Your task to perform on an android device: turn off improve location accuracy Image 0: 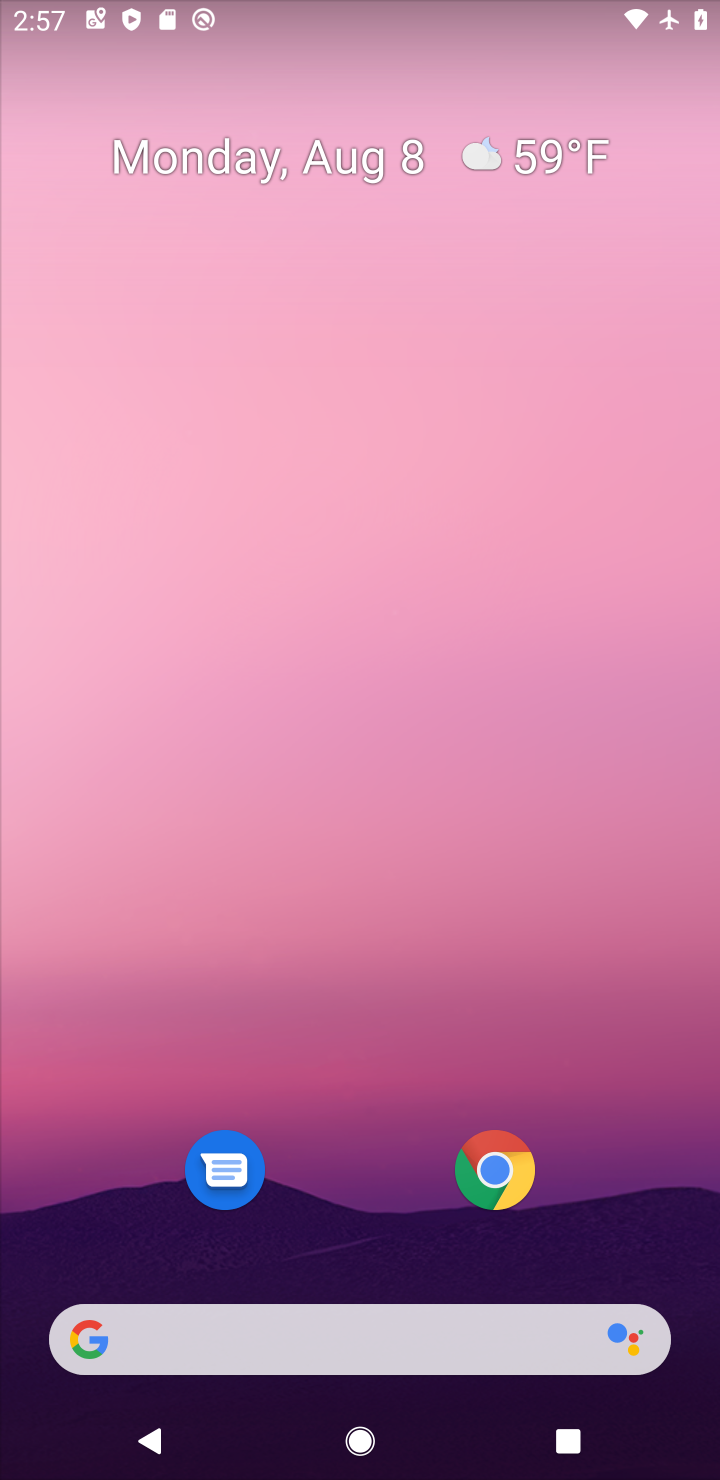
Step 0: drag from (363, 733) to (389, 472)
Your task to perform on an android device: turn off improve location accuracy Image 1: 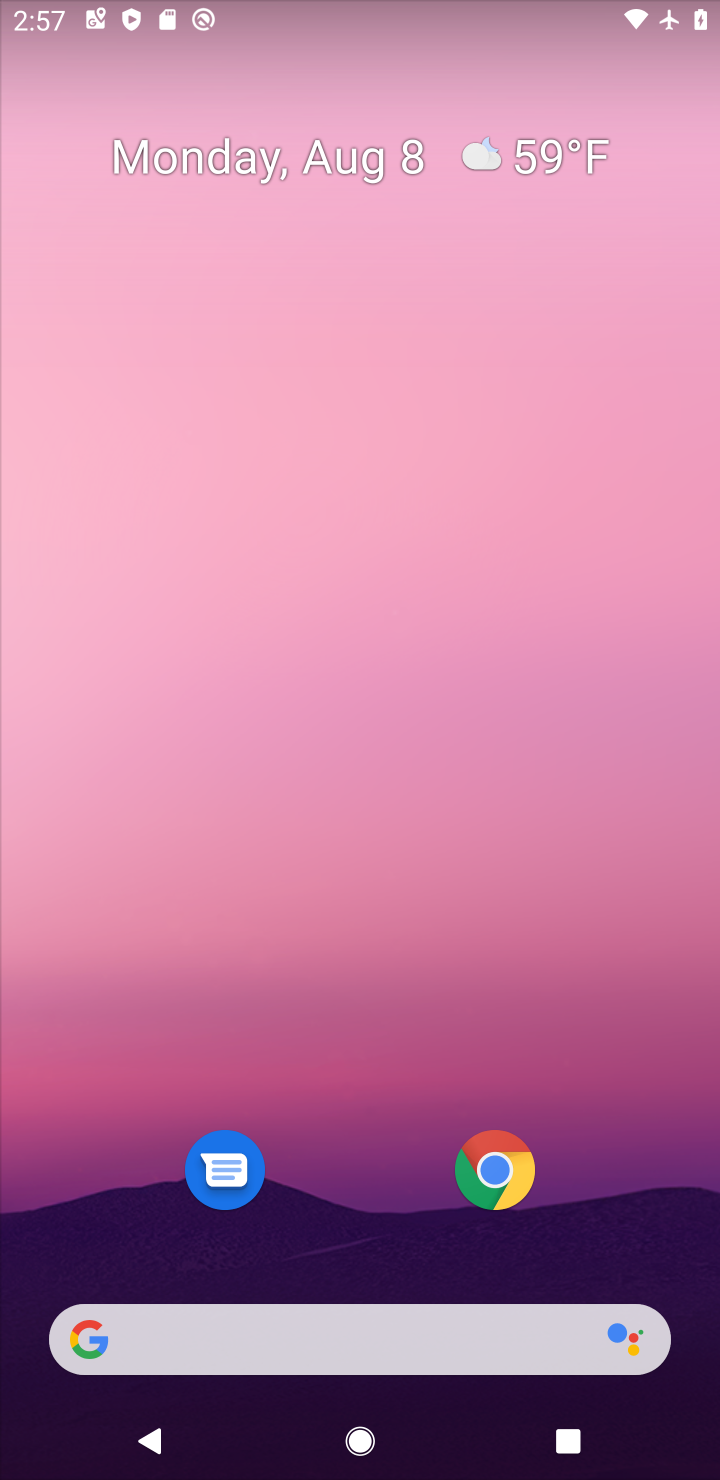
Step 1: drag from (384, 1157) to (387, 372)
Your task to perform on an android device: turn off improve location accuracy Image 2: 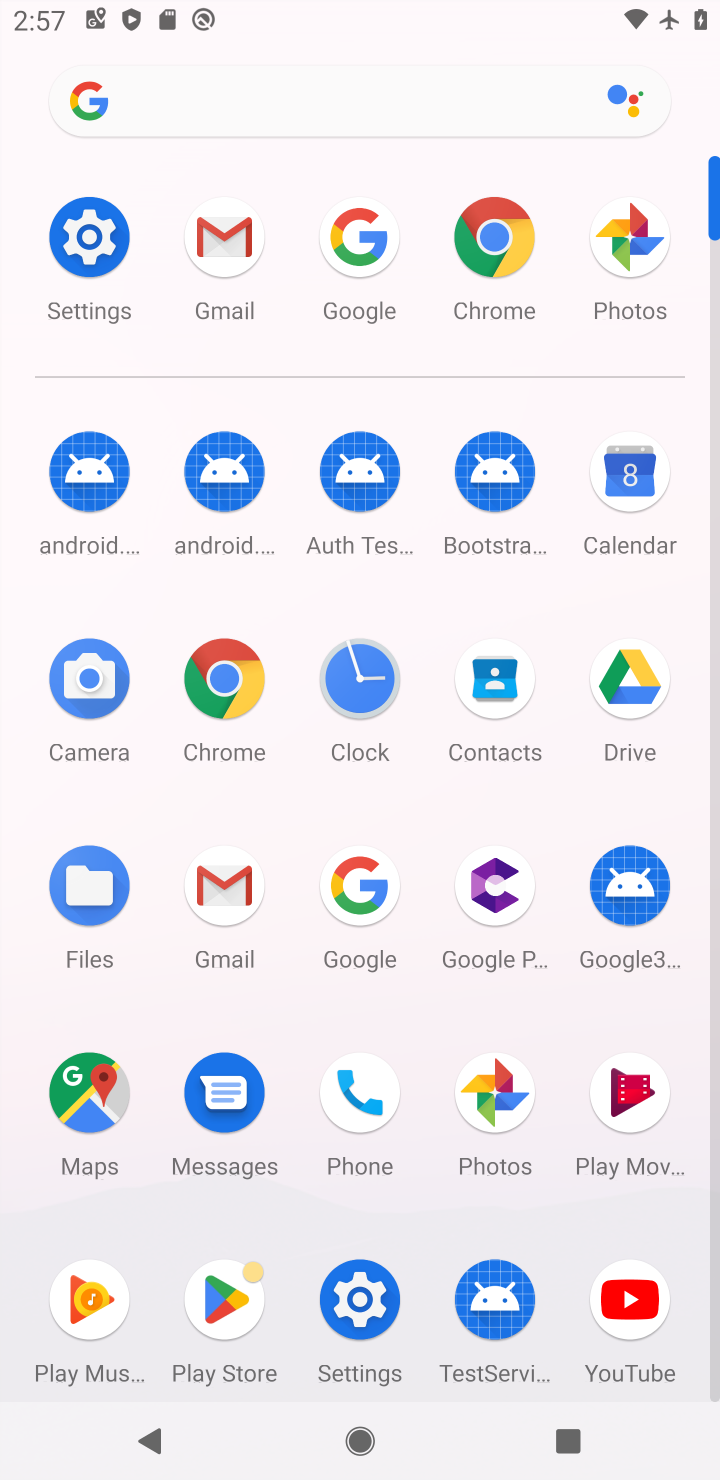
Step 2: click (102, 285)
Your task to perform on an android device: turn off improve location accuracy Image 3: 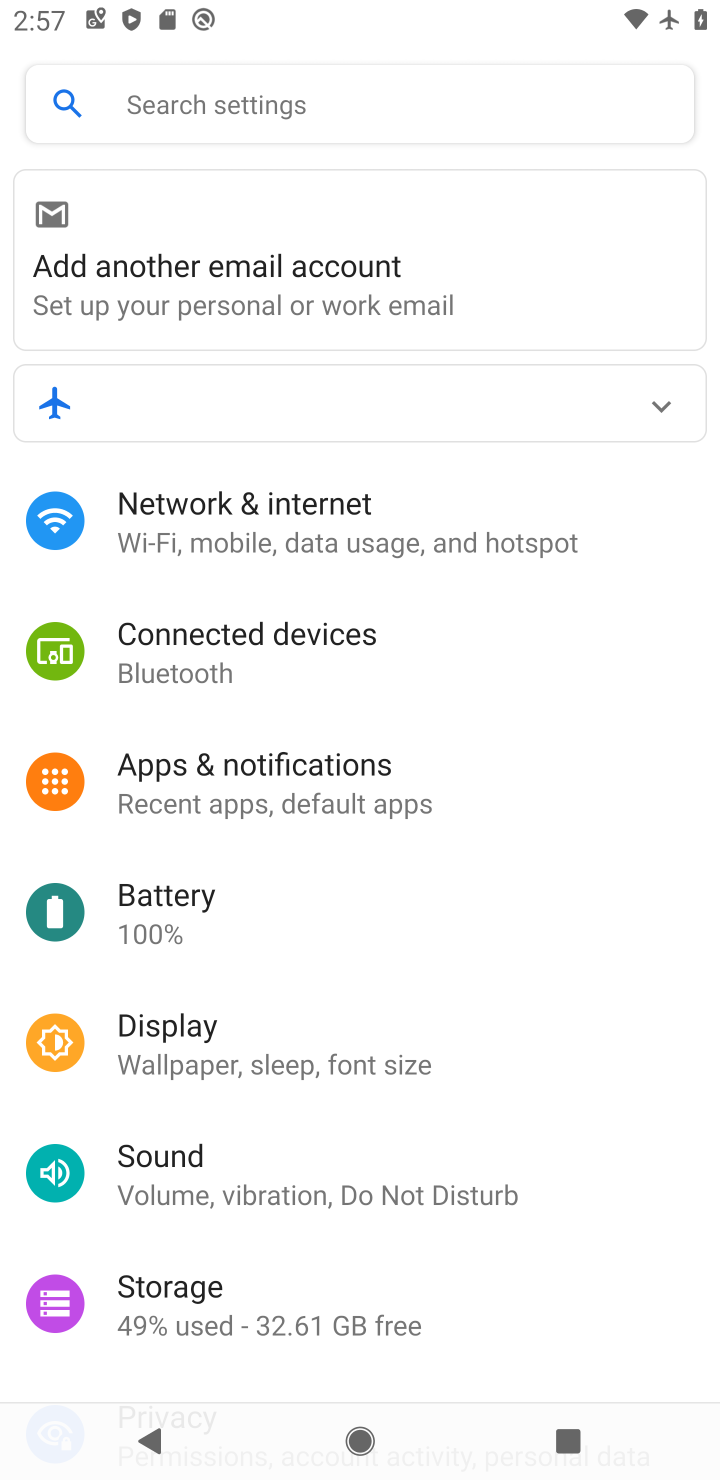
Step 3: drag from (318, 1149) to (369, 601)
Your task to perform on an android device: turn off improve location accuracy Image 4: 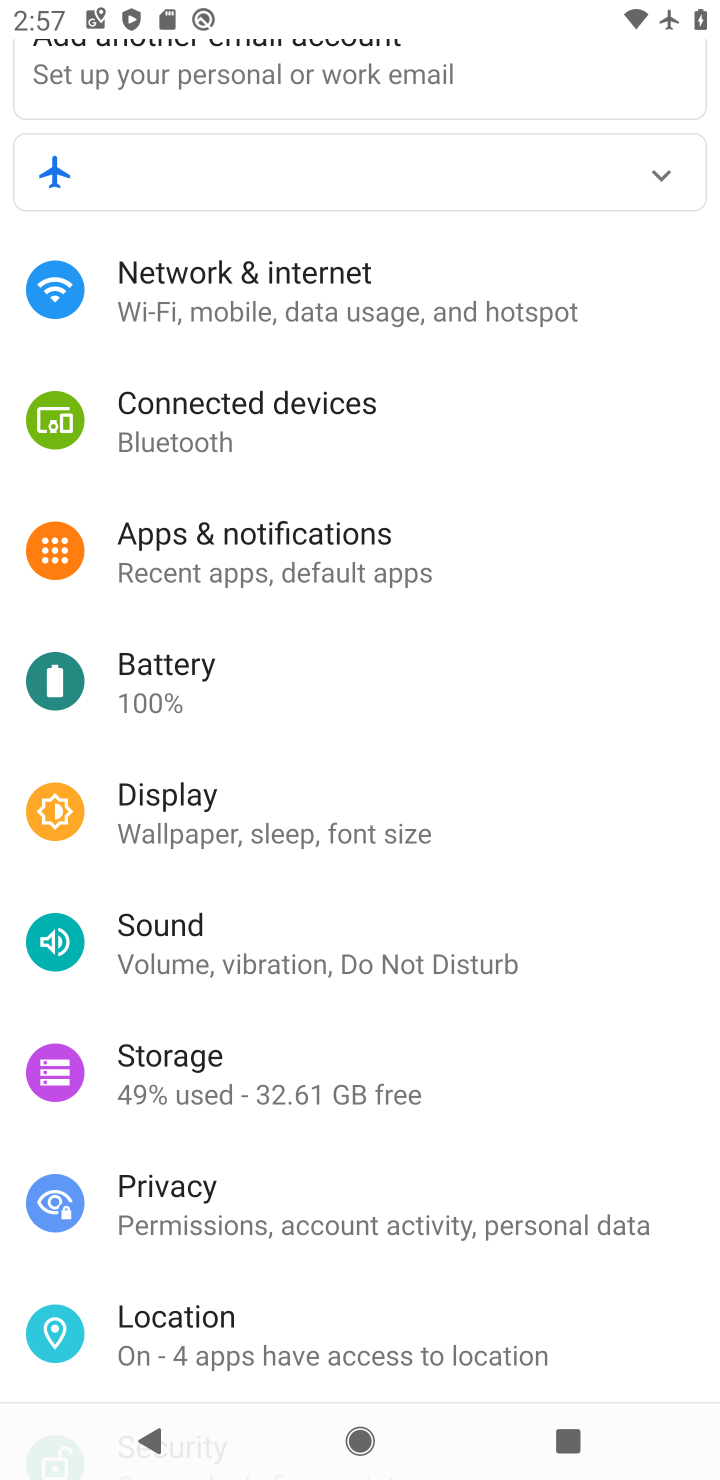
Step 4: click (286, 1340)
Your task to perform on an android device: turn off improve location accuracy Image 5: 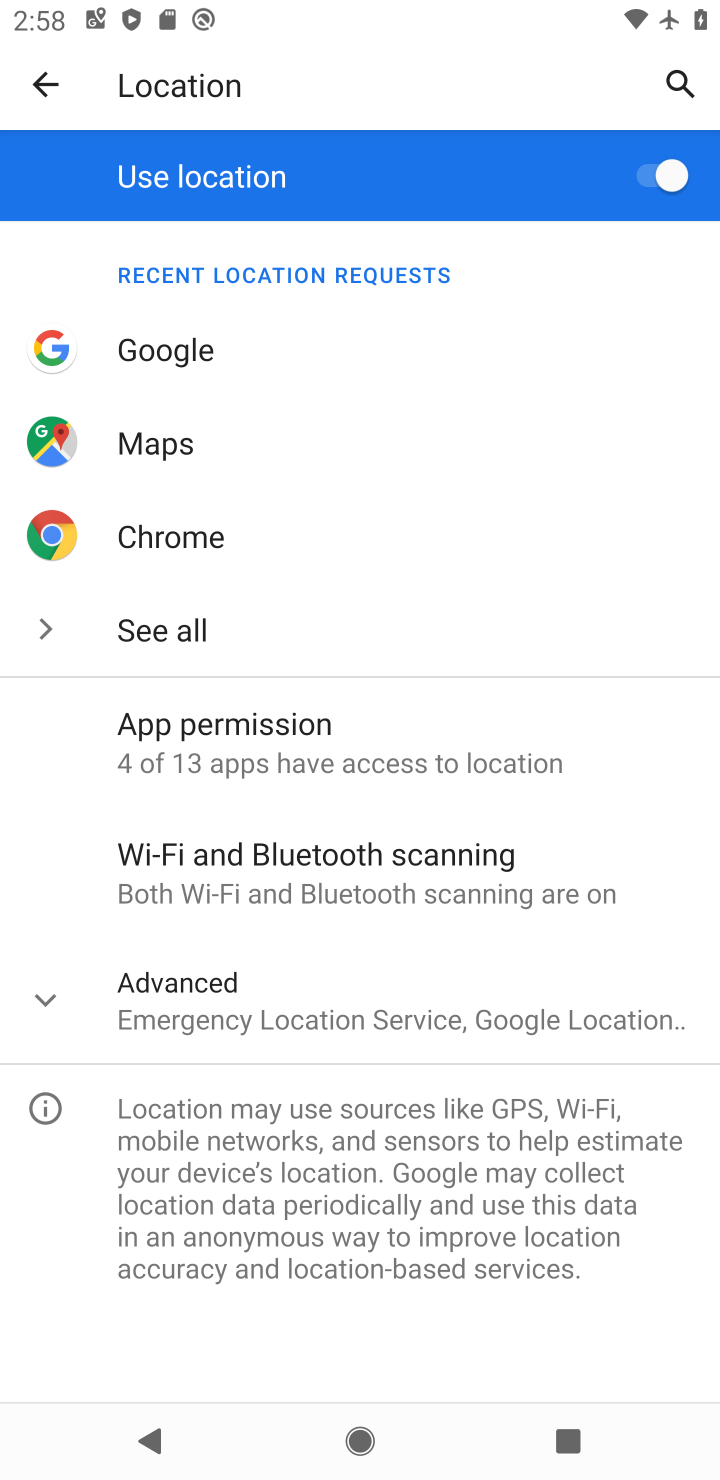
Step 5: click (285, 1014)
Your task to perform on an android device: turn off improve location accuracy Image 6: 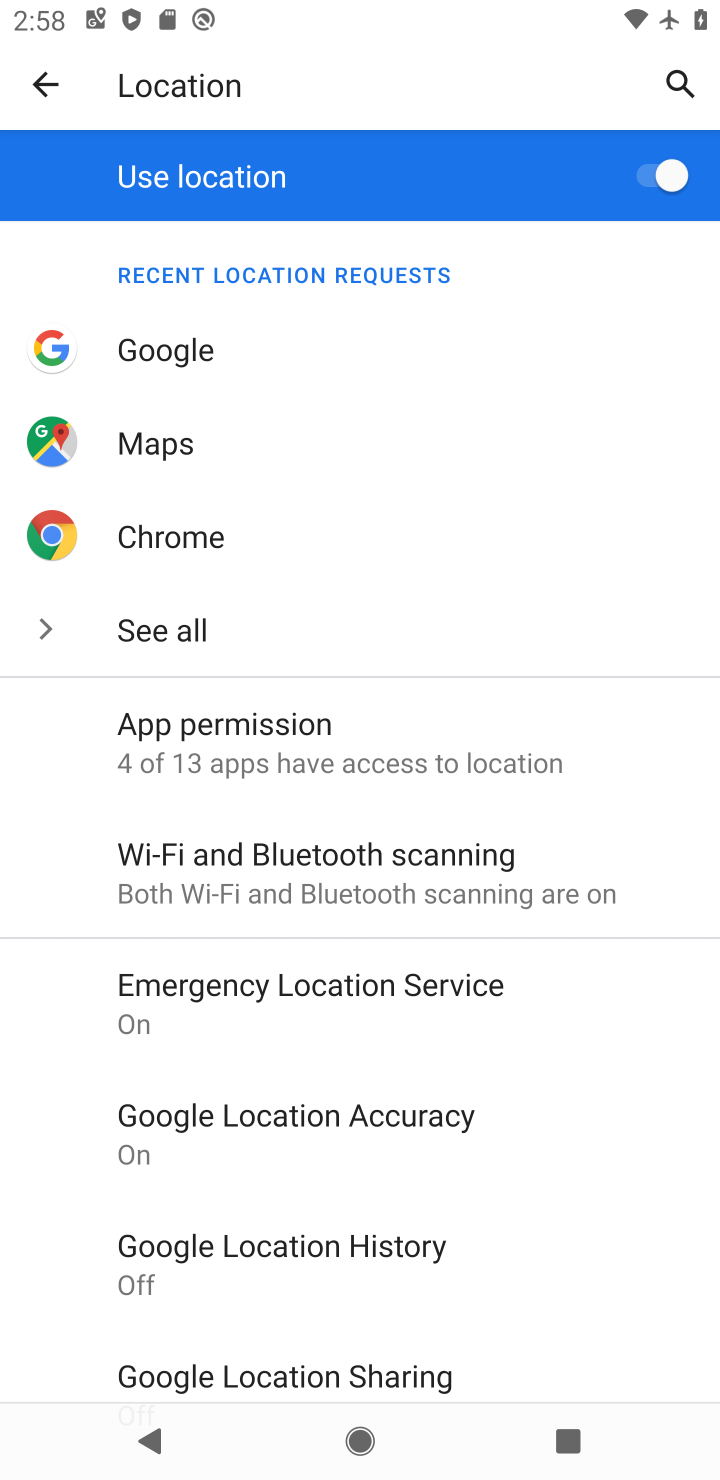
Step 6: click (381, 1106)
Your task to perform on an android device: turn off improve location accuracy Image 7: 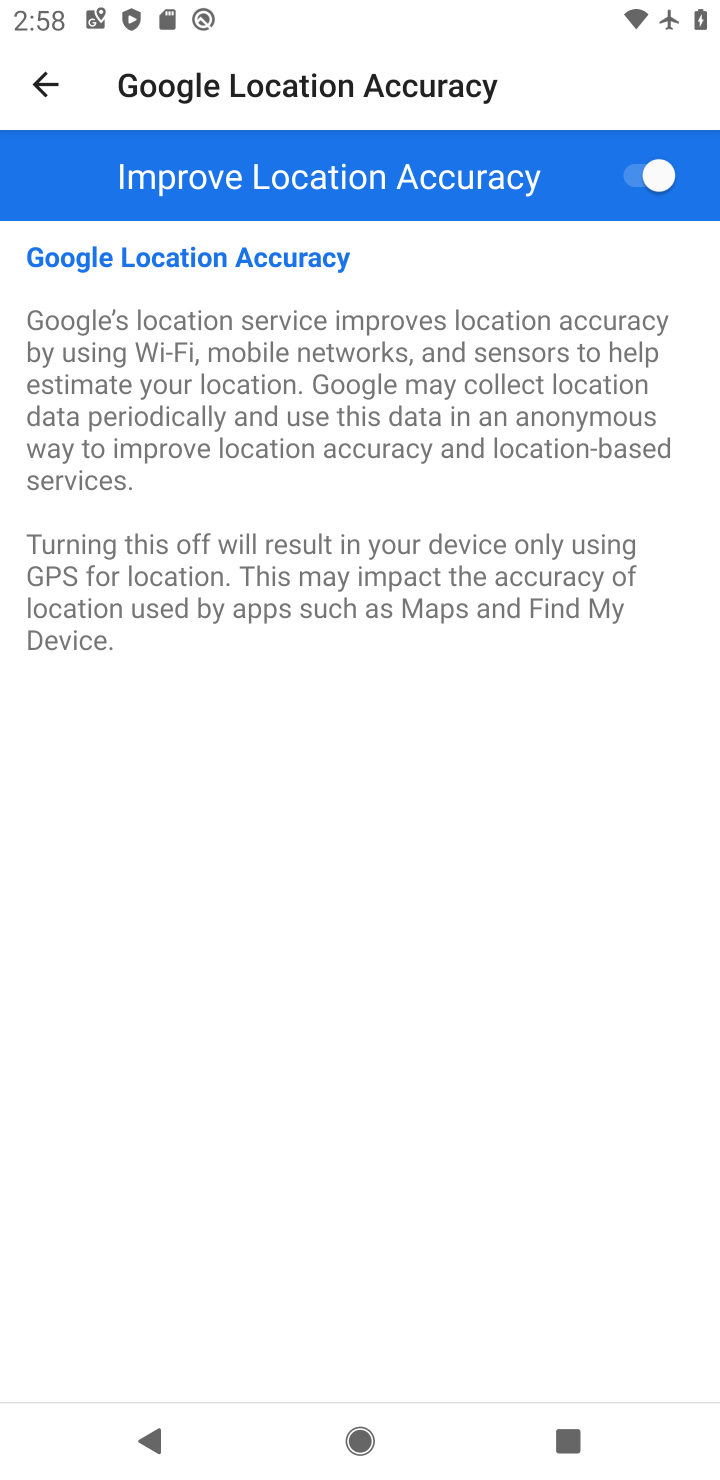
Step 7: click (642, 178)
Your task to perform on an android device: turn off improve location accuracy Image 8: 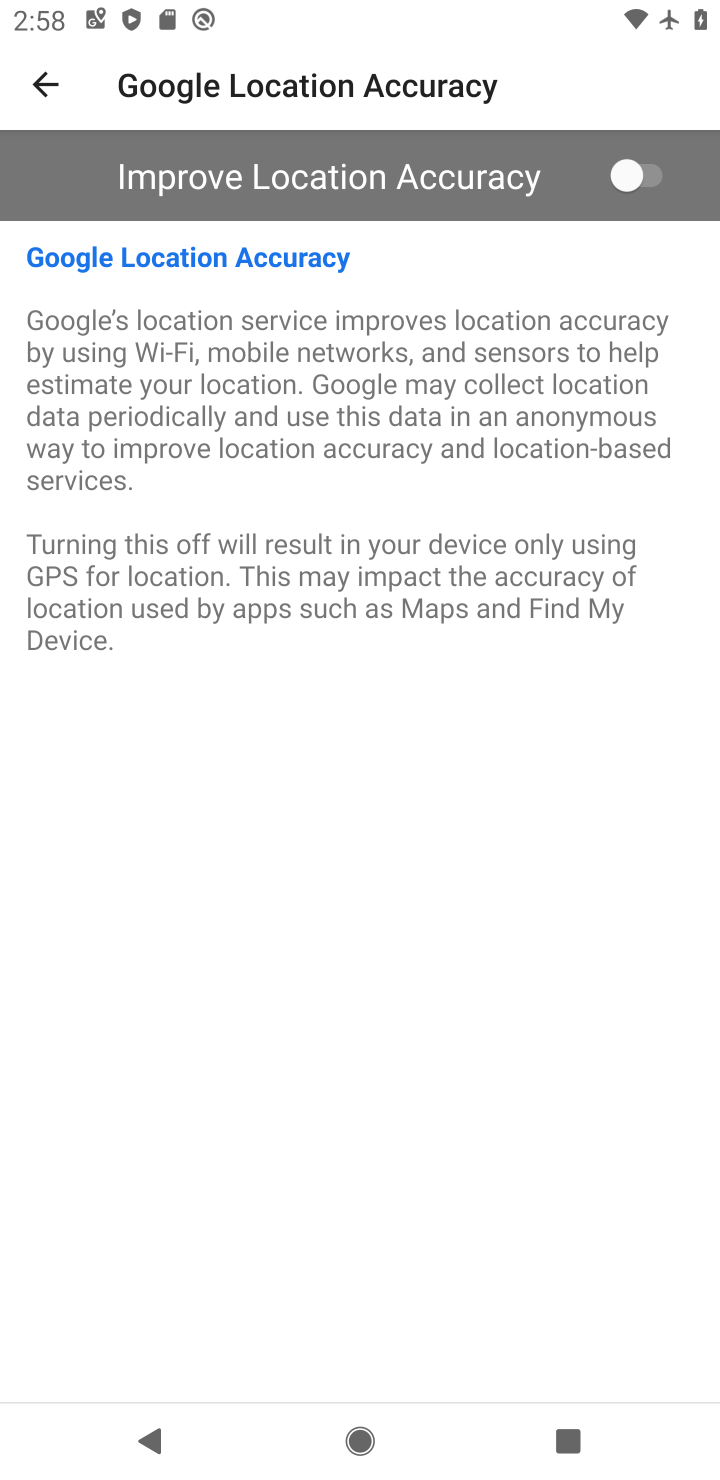
Step 8: task complete